Your task to perform on an android device: visit the assistant section in the google photos Image 0: 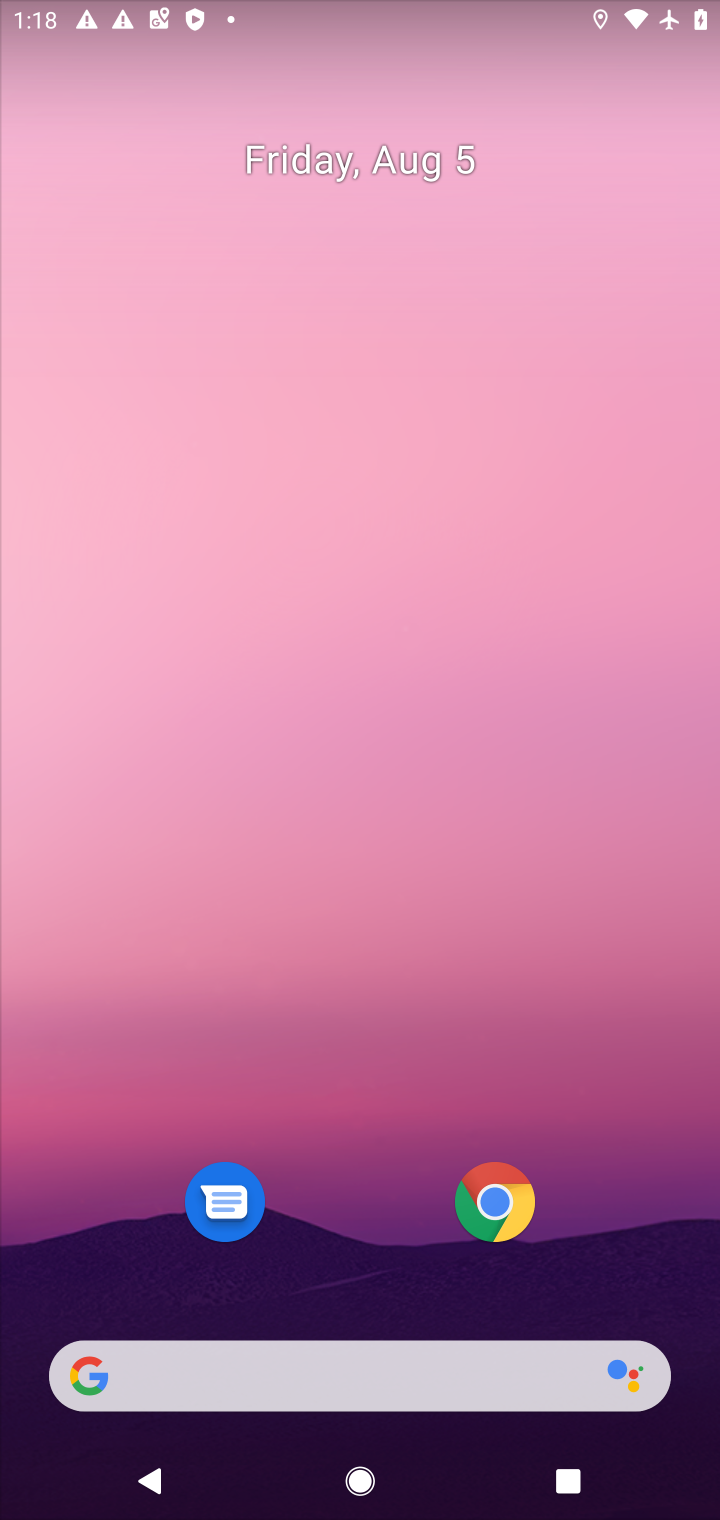
Step 0: press home button
Your task to perform on an android device: visit the assistant section in the google photos Image 1: 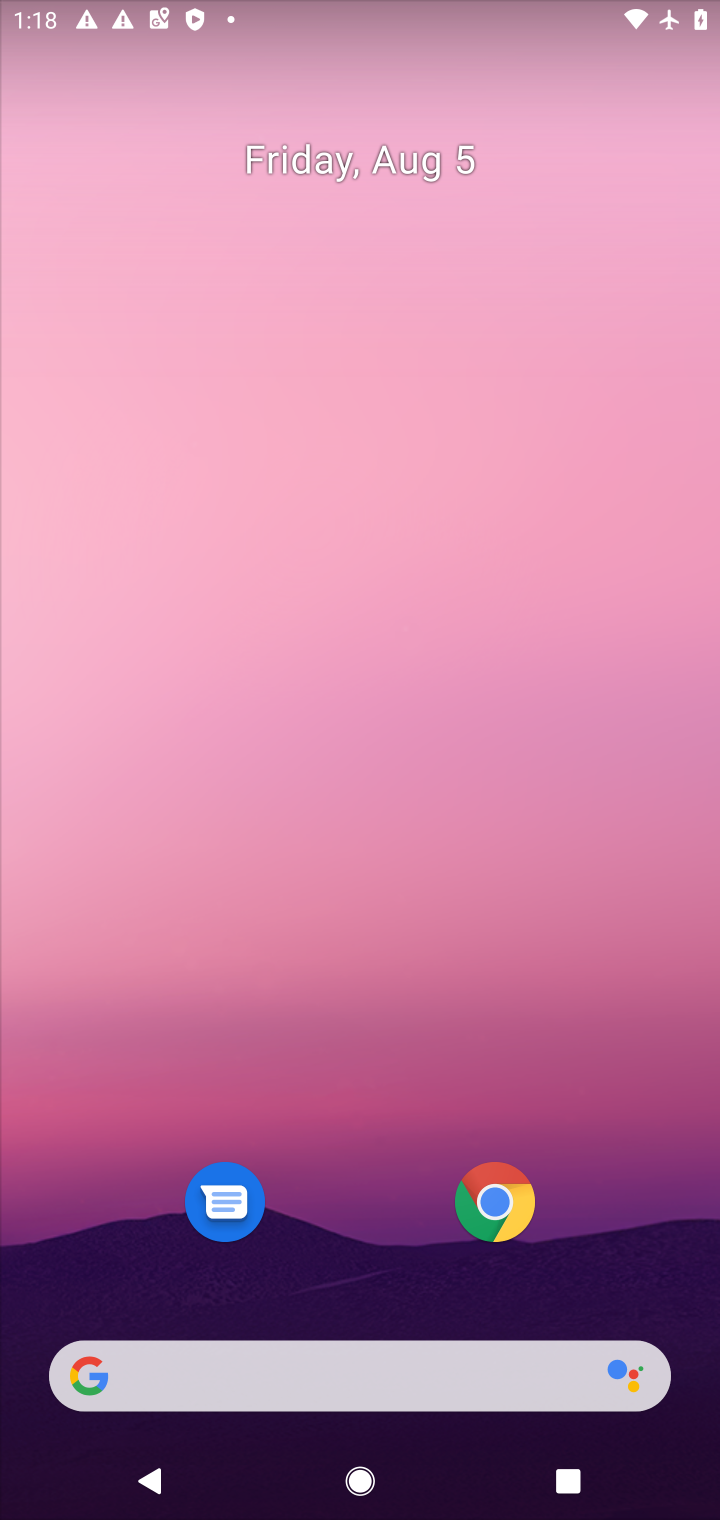
Step 1: drag from (642, 1207) to (569, 0)
Your task to perform on an android device: visit the assistant section in the google photos Image 2: 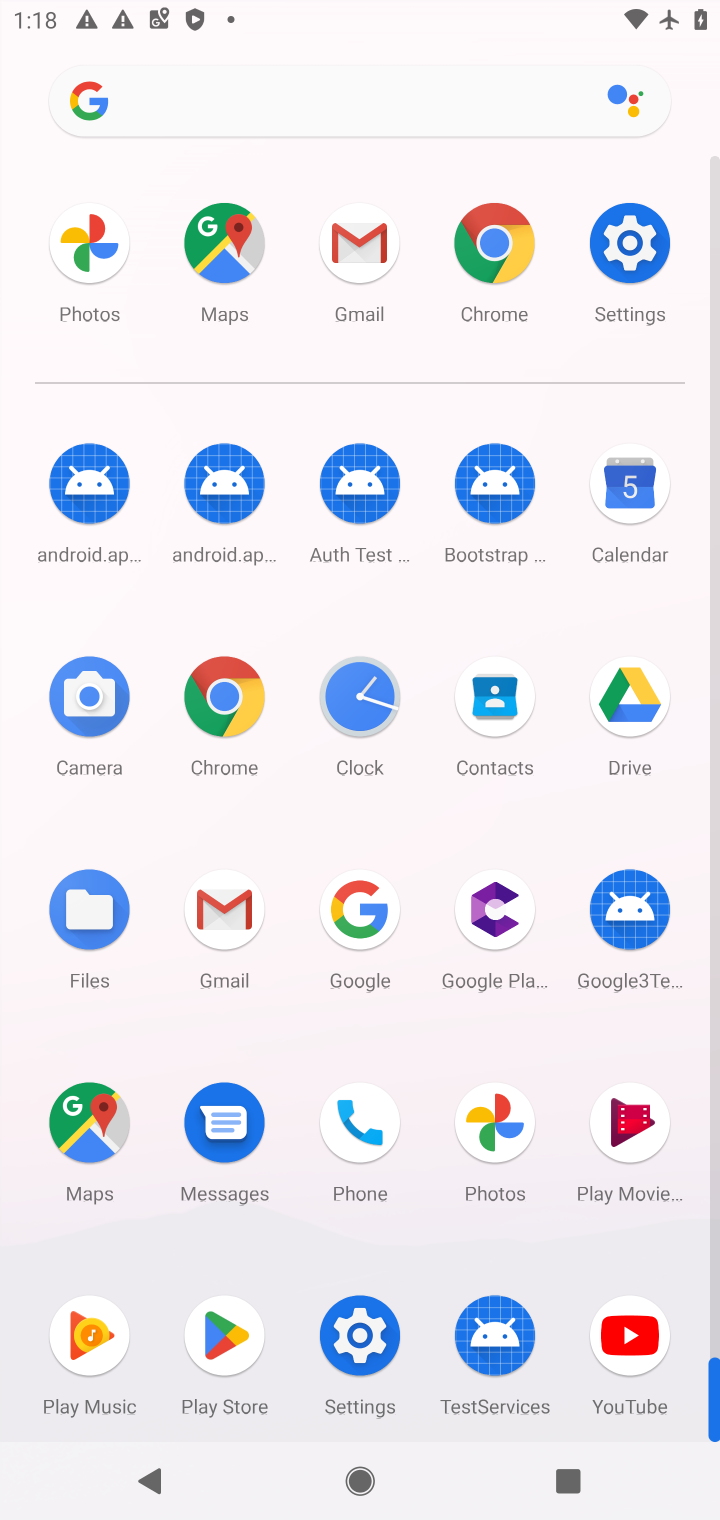
Step 2: click (492, 1127)
Your task to perform on an android device: visit the assistant section in the google photos Image 3: 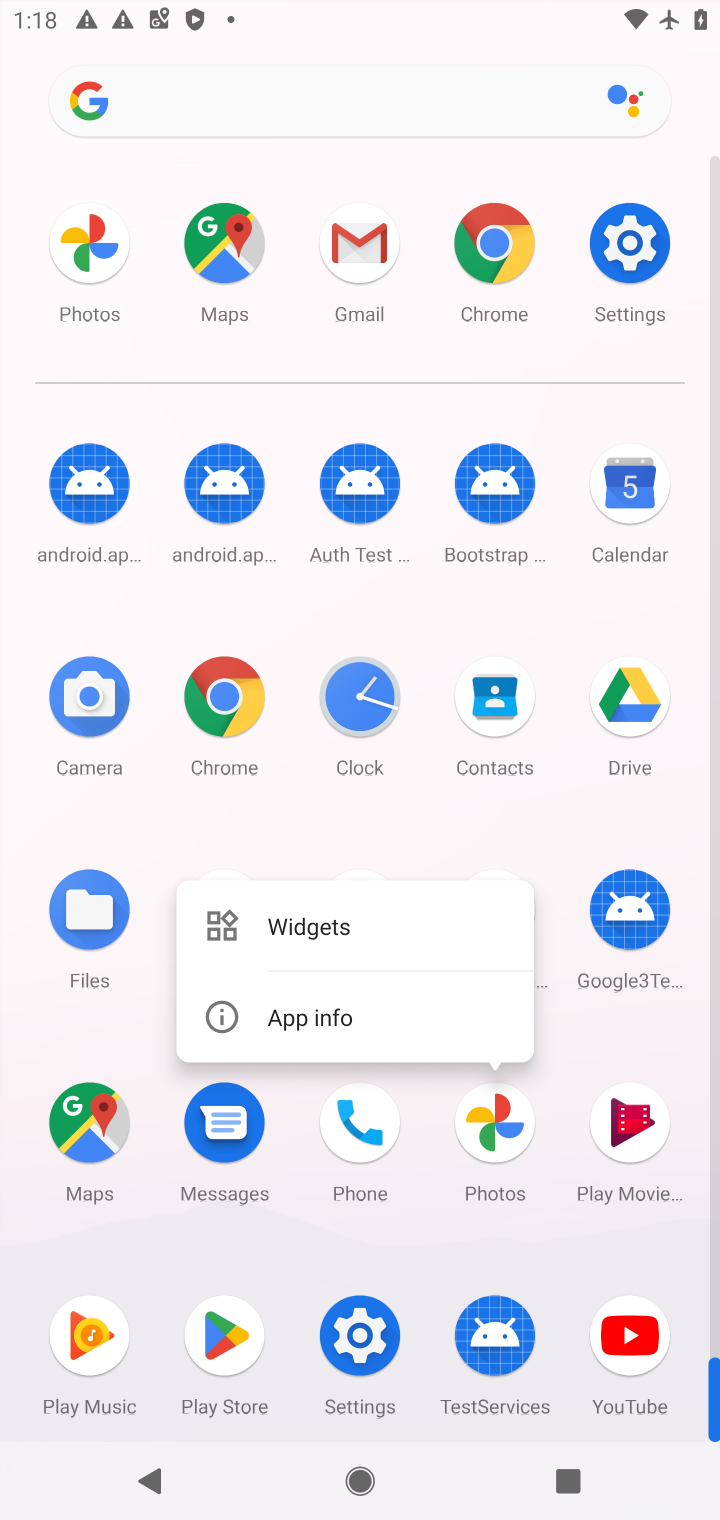
Step 3: click (492, 1127)
Your task to perform on an android device: visit the assistant section in the google photos Image 4: 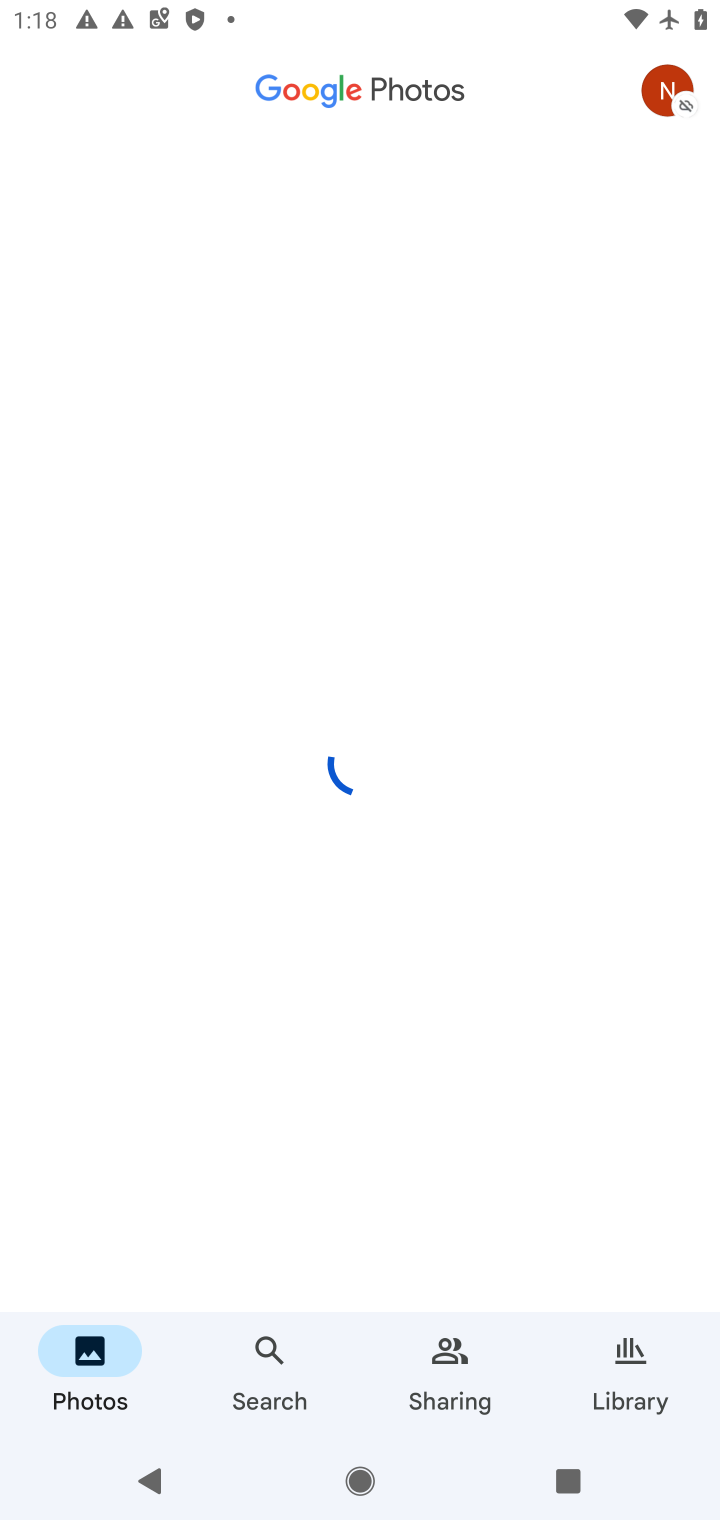
Step 4: click (630, 1356)
Your task to perform on an android device: visit the assistant section in the google photos Image 5: 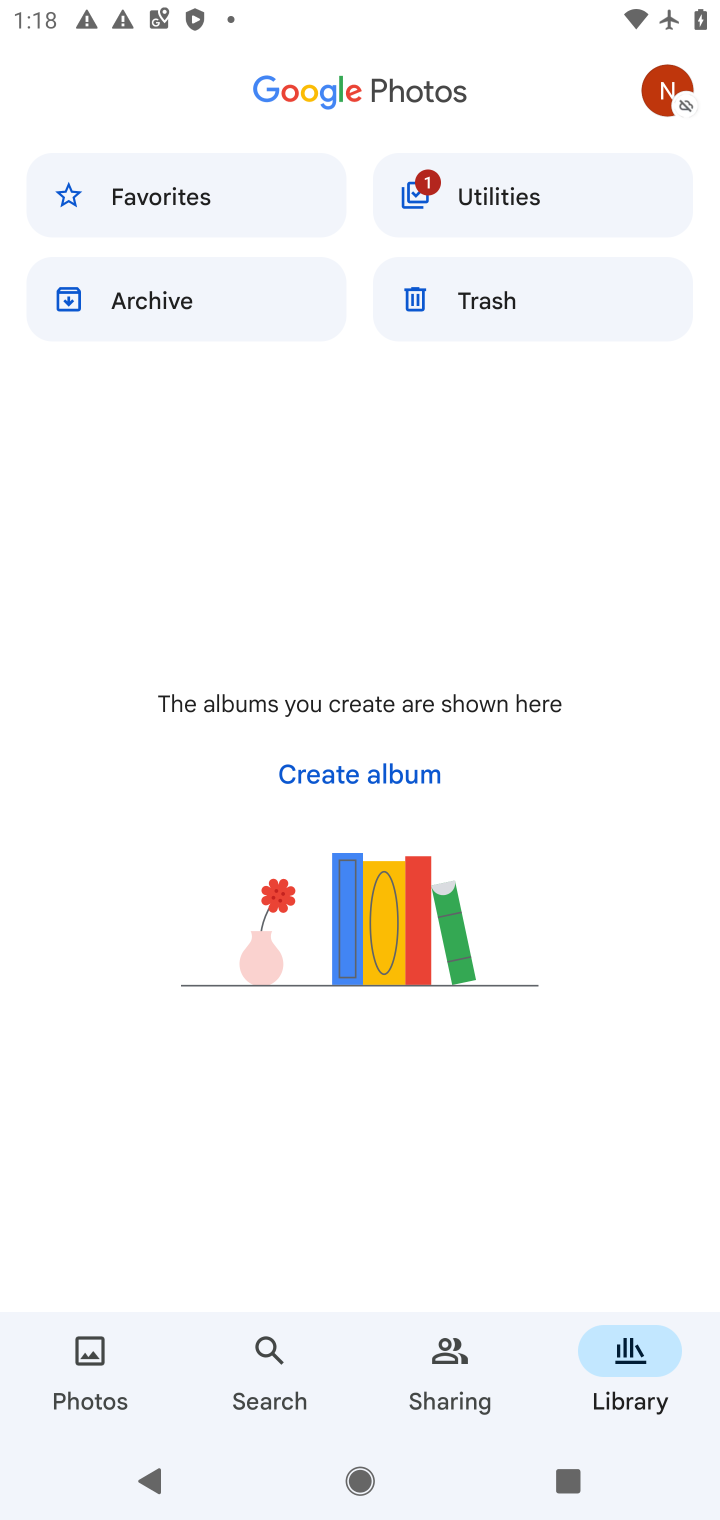
Step 5: click (546, 190)
Your task to perform on an android device: visit the assistant section in the google photos Image 6: 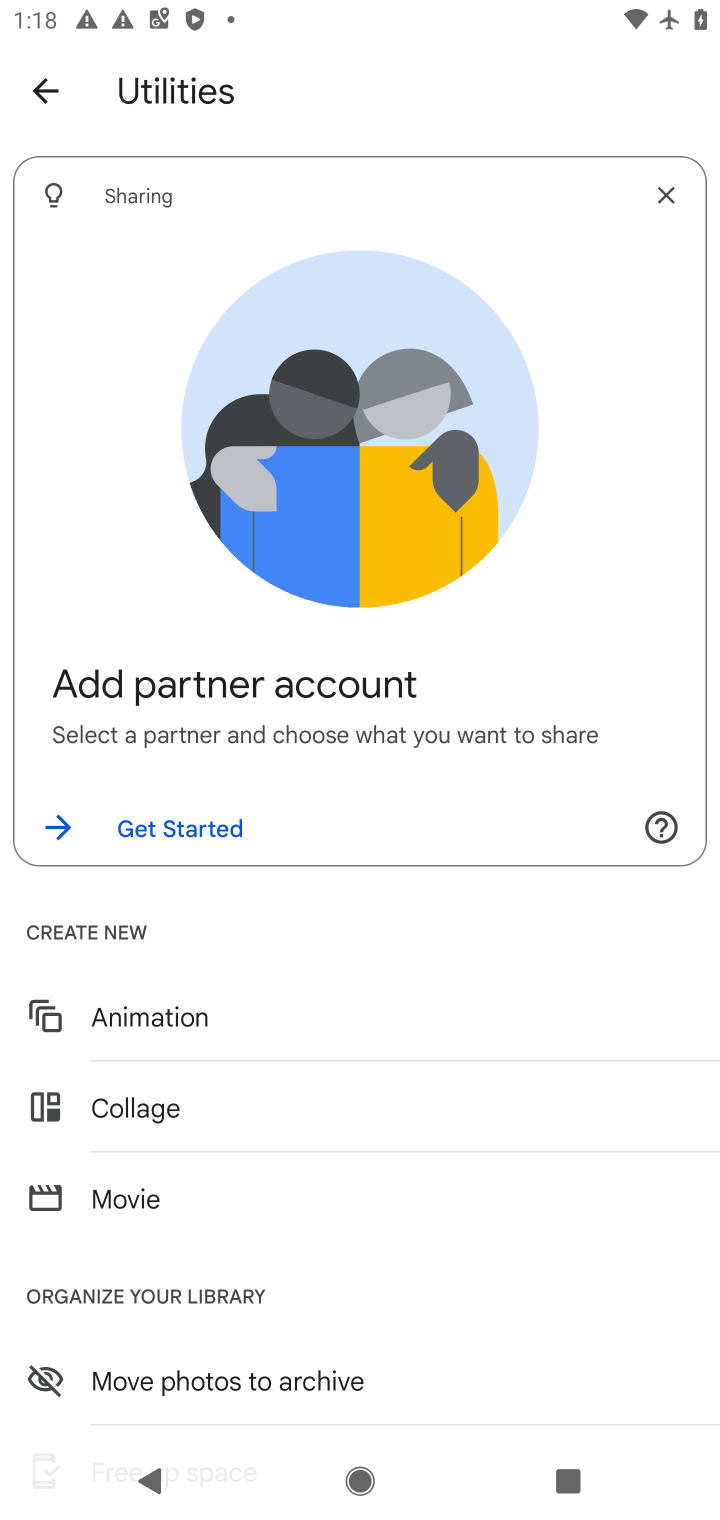
Step 6: task complete